Your task to perform on an android device: add a contact in the contacts app Image 0: 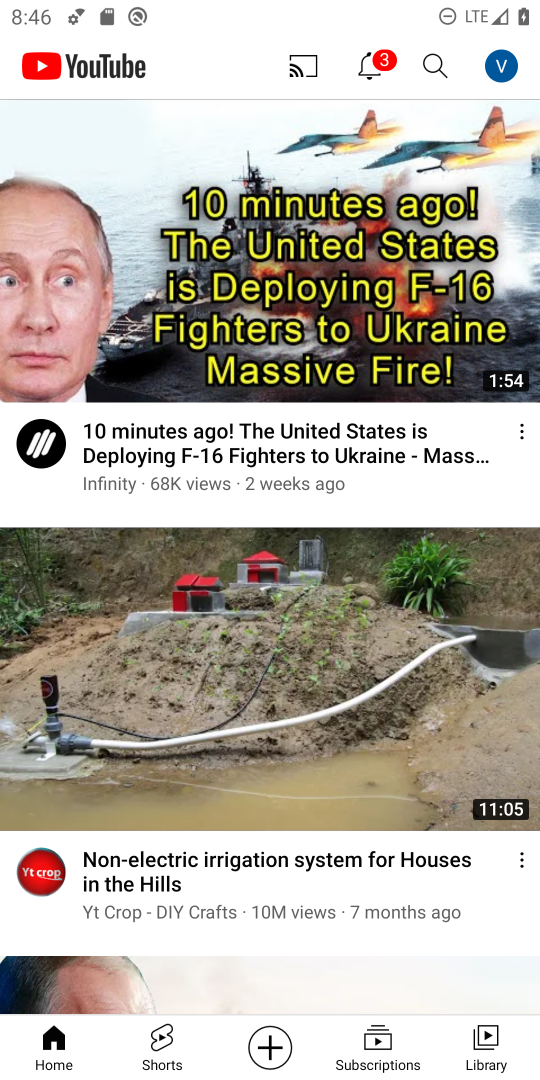
Step 0: press home button
Your task to perform on an android device: add a contact in the contacts app Image 1: 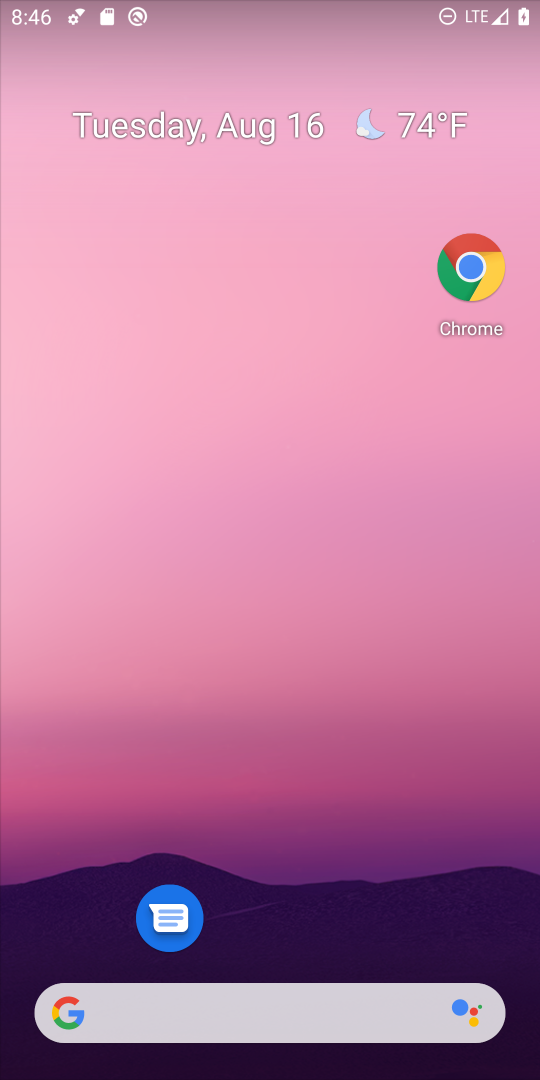
Step 1: click (518, 810)
Your task to perform on an android device: add a contact in the contacts app Image 2: 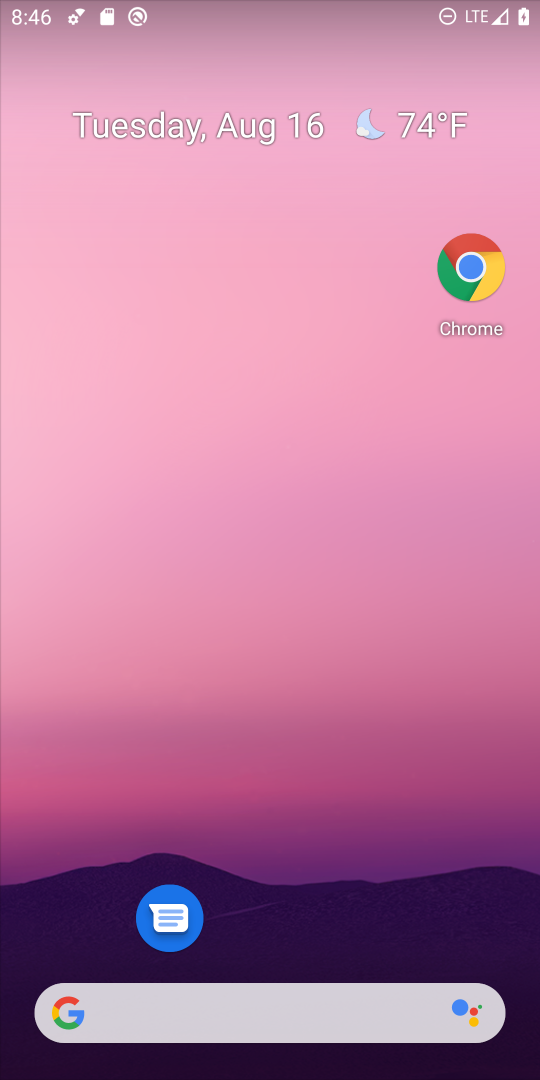
Step 2: drag from (272, 1072) to (293, 342)
Your task to perform on an android device: add a contact in the contacts app Image 3: 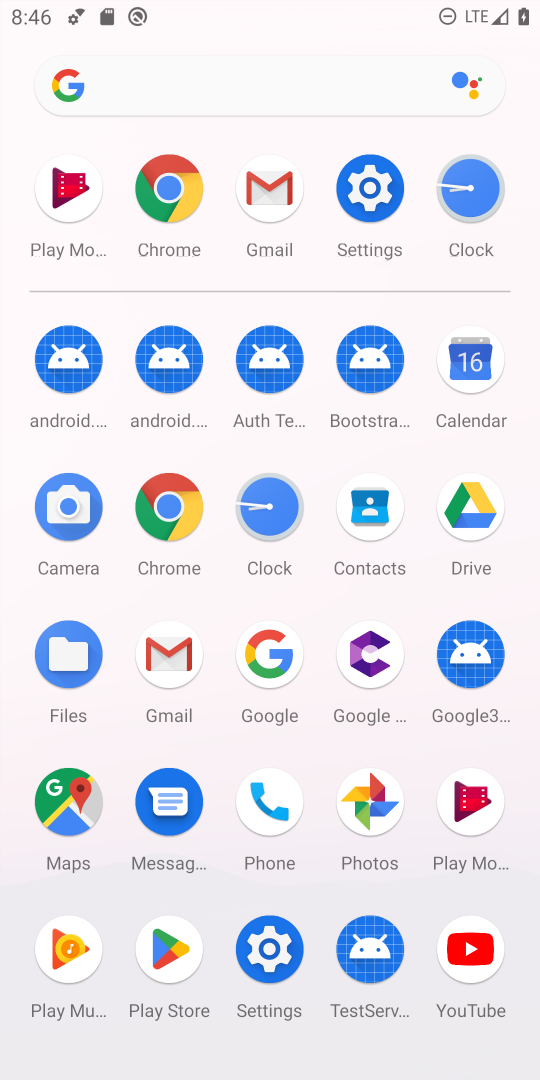
Step 3: click (381, 529)
Your task to perform on an android device: add a contact in the contacts app Image 4: 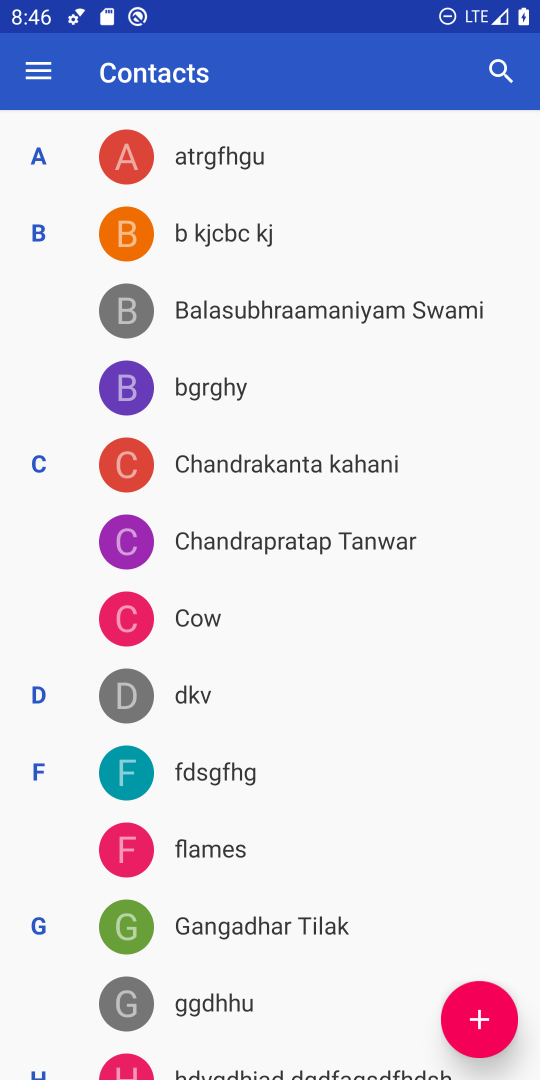
Step 4: click (454, 1013)
Your task to perform on an android device: add a contact in the contacts app Image 5: 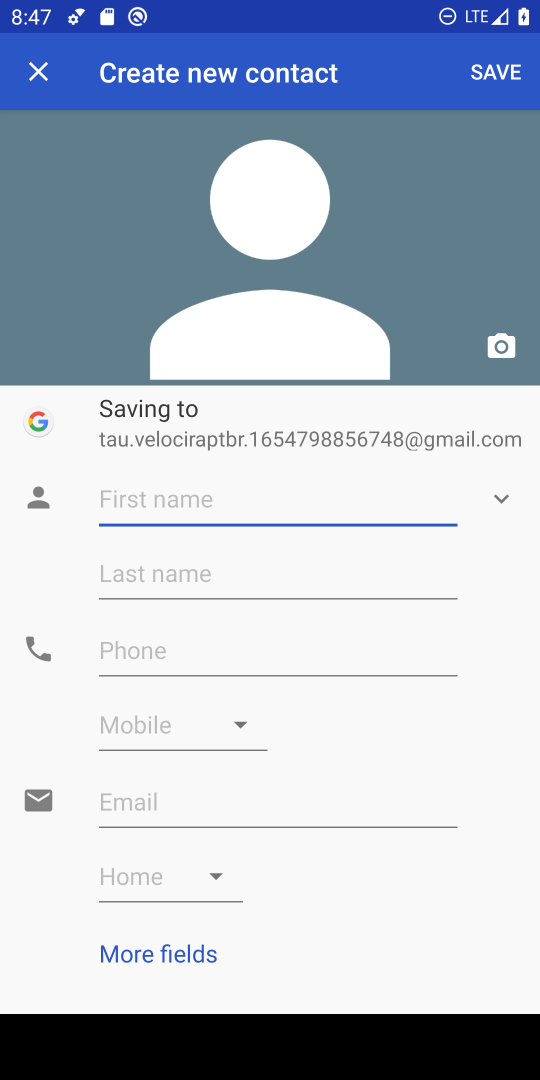
Step 5: type "jgbhjbhgk"
Your task to perform on an android device: add a contact in the contacts app Image 6: 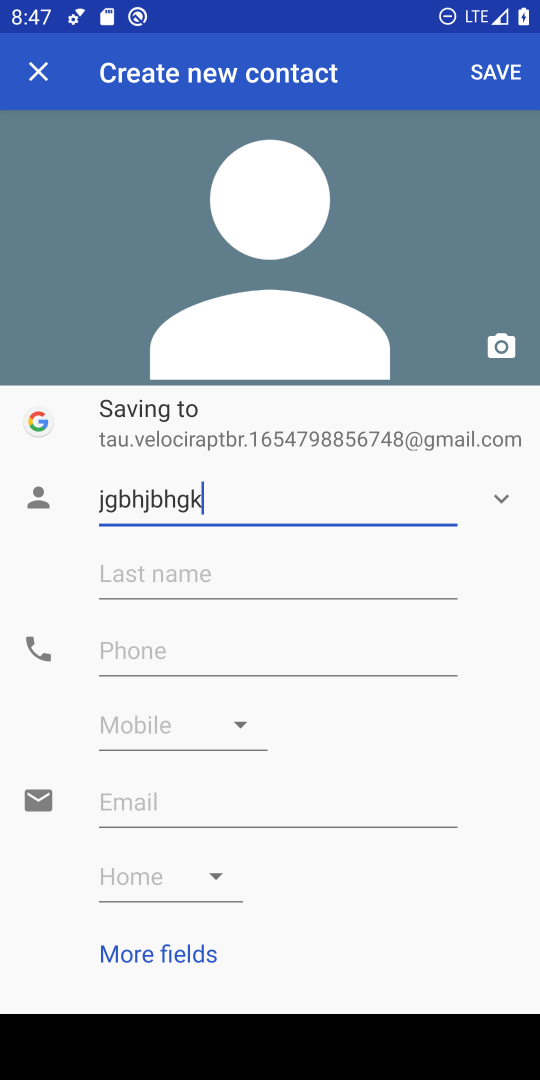
Step 6: click (289, 648)
Your task to perform on an android device: add a contact in the contacts app Image 7: 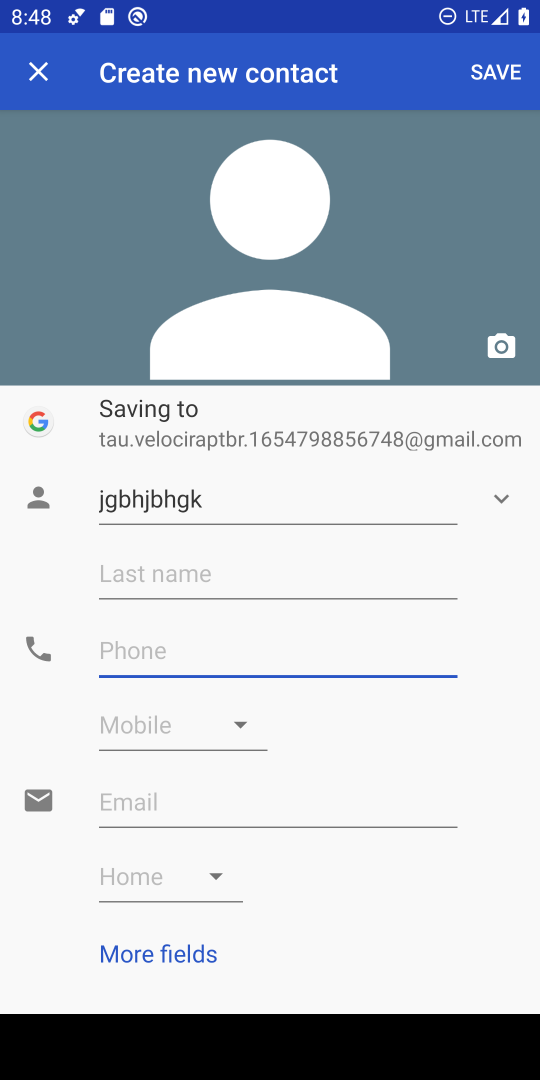
Step 7: type "8765467"
Your task to perform on an android device: add a contact in the contacts app Image 8: 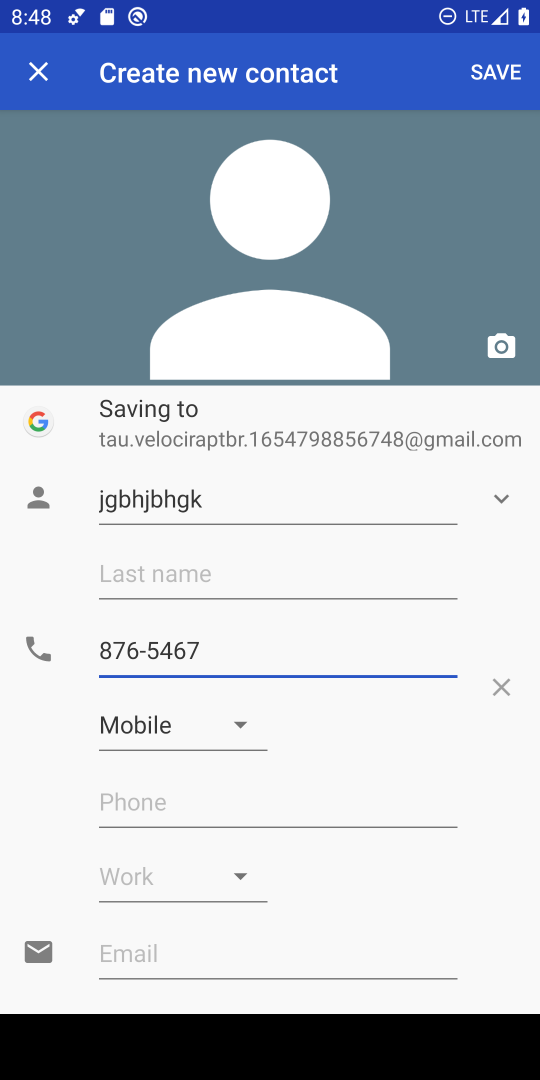
Step 8: click (513, 80)
Your task to perform on an android device: add a contact in the contacts app Image 9: 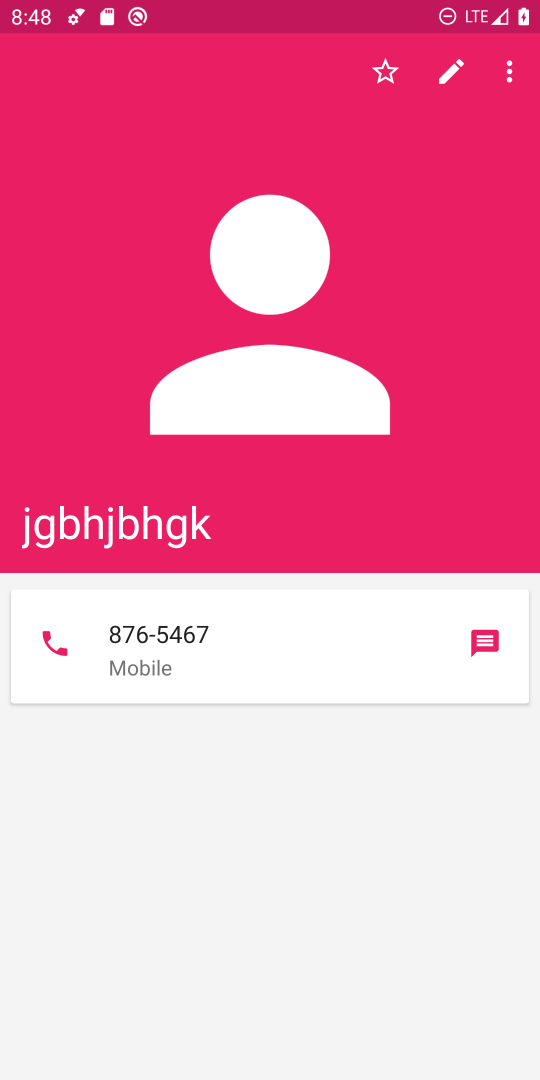
Step 9: task complete